Your task to perform on an android device: turn off location history Image 0: 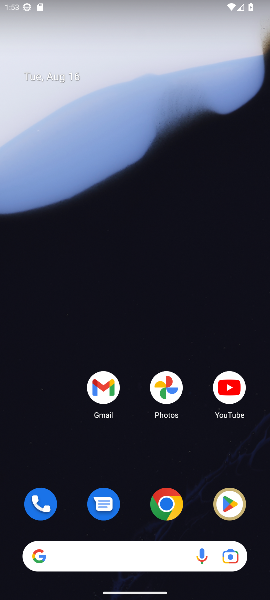
Step 0: drag from (138, 517) to (118, 89)
Your task to perform on an android device: turn off location history Image 1: 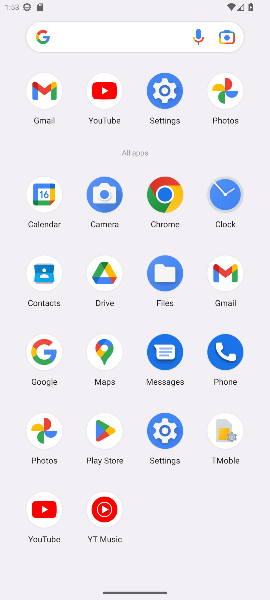
Step 1: click (161, 83)
Your task to perform on an android device: turn off location history Image 2: 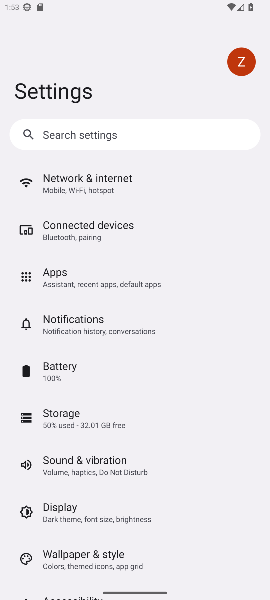
Step 2: drag from (178, 527) to (157, 263)
Your task to perform on an android device: turn off location history Image 3: 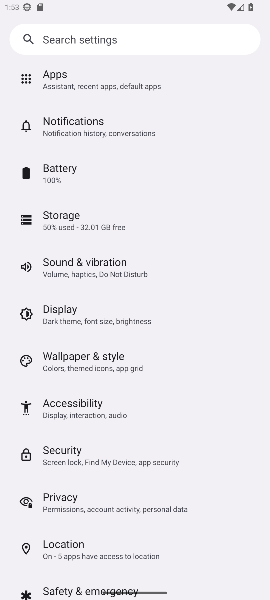
Step 3: click (59, 541)
Your task to perform on an android device: turn off location history Image 4: 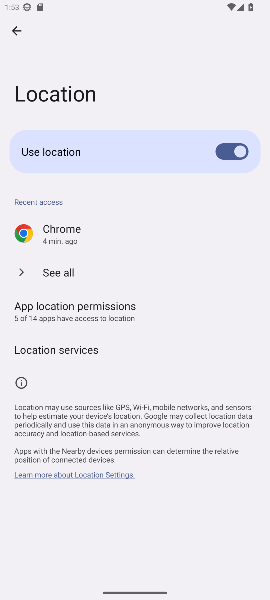
Step 4: click (46, 351)
Your task to perform on an android device: turn off location history Image 5: 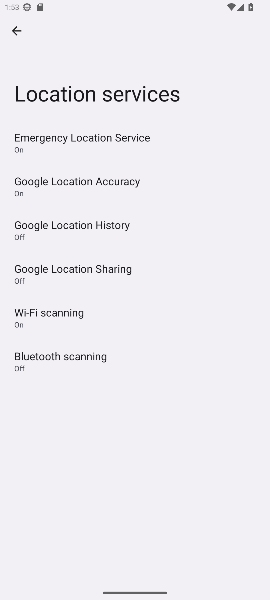
Step 5: click (69, 226)
Your task to perform on an android device: turn off location history Image 6: 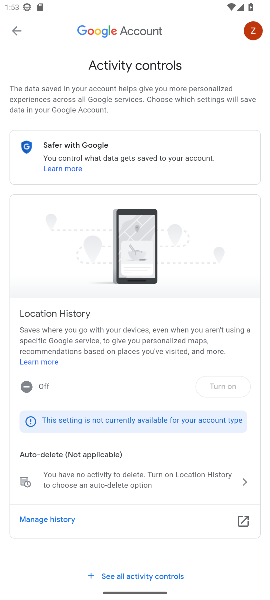
Step 6: task complete